Your task to perform on an android device: Go to Android settings Image 0: 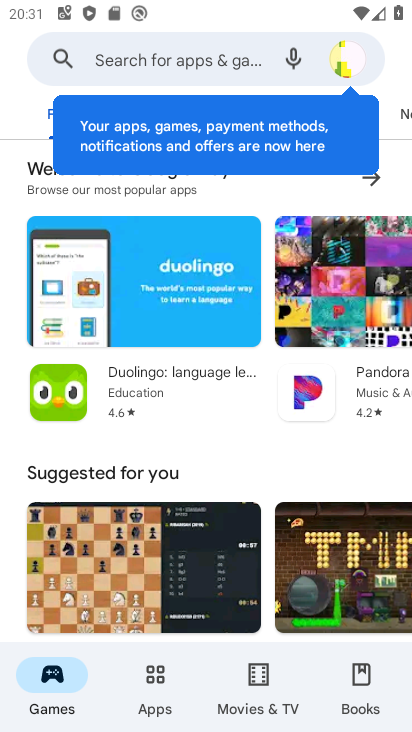
Step 0: press home button
Your task to perform on an android device: Go to Android settings Image 1: 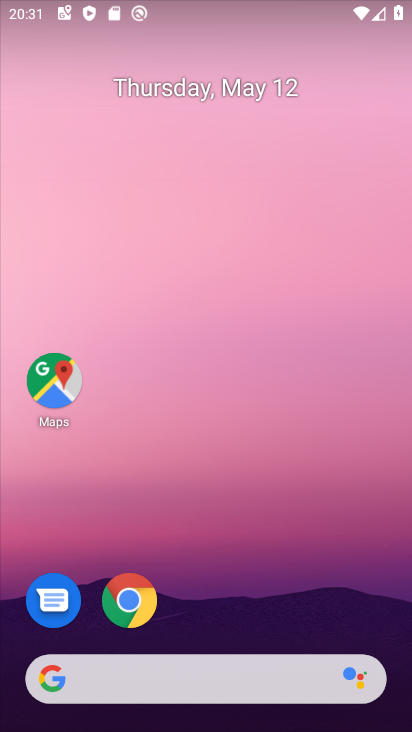
Step 1: drag from (260, 625) to (215, 277)
Your task to perform on an android device: Go to Android settings Image 2: 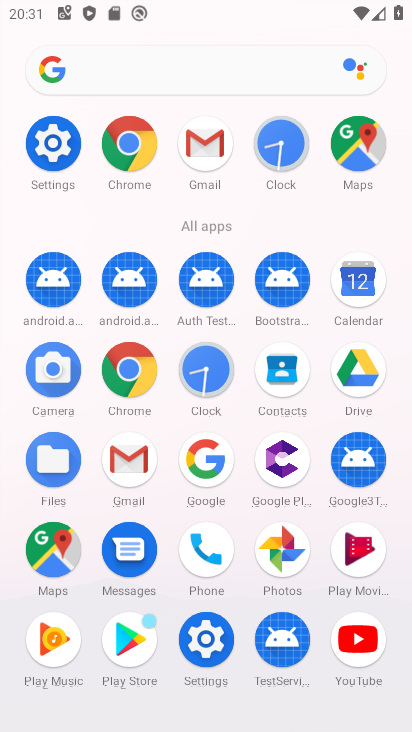
Step 2: drag from (250, 580) to (264, 255)
Your task to perform on an android device: Go to Android settings Image 3: 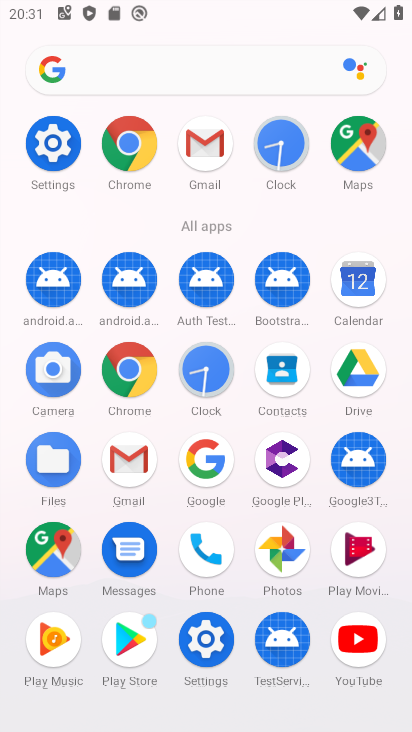
Step 3: click (203, 665)
Your task to perform on an android device: Go to Android settings Image 4: 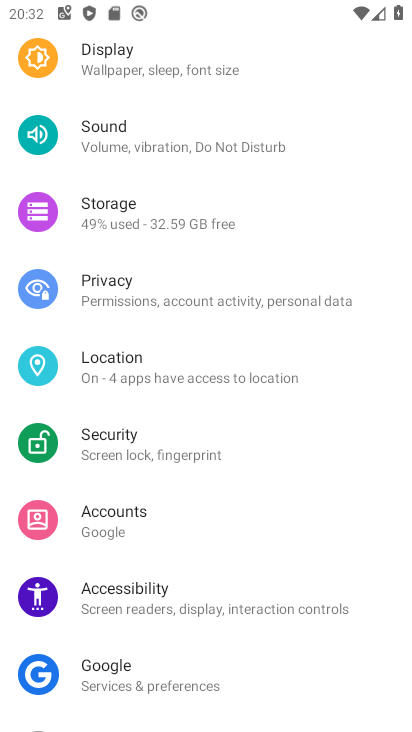
Step 4: drag from (121, 644) to (152, 290)
Your task to perform on an android device: Go to Android settings Image 5: 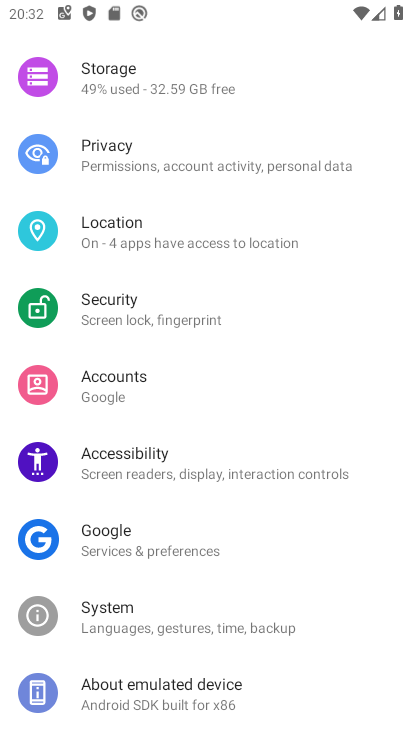
Step 5: click (164, 694)
Your task to perform on an android device: Go to Android settings Image 6: 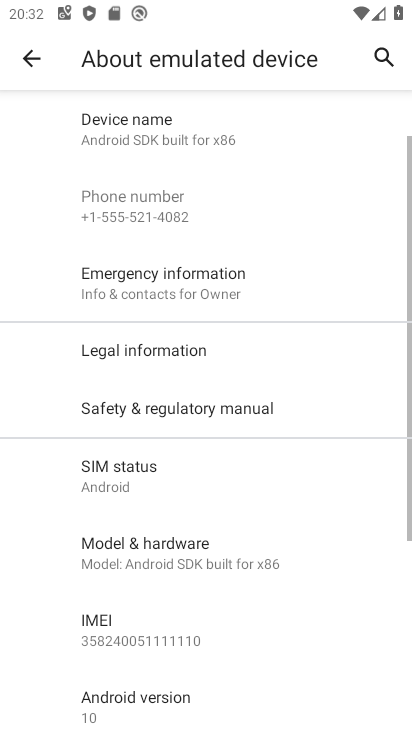
Step 6: click (125, 497)
Your task to perform on an android device: Go to Android settings Image 7: 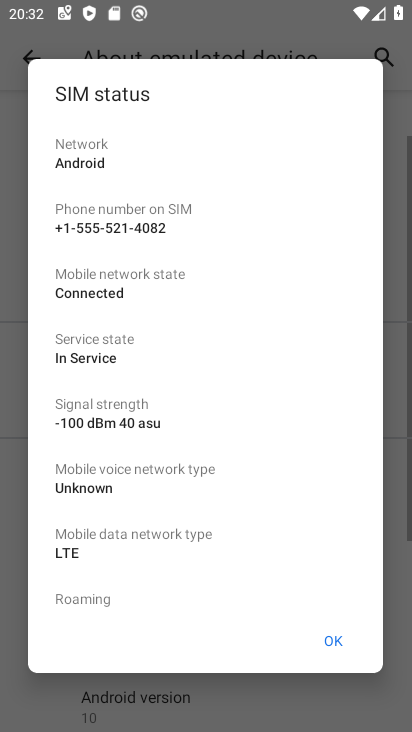
Step 7: click (332, 640)
Your task to perform on an android device: Go to Android settings Image 8: 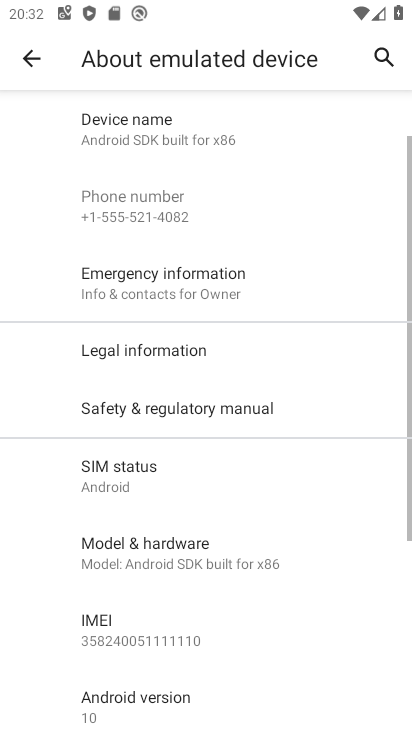
Step 8: drag from (197, 661) to (184, 414)
Your task to perform on an android device: Go to Android settings Image 9: 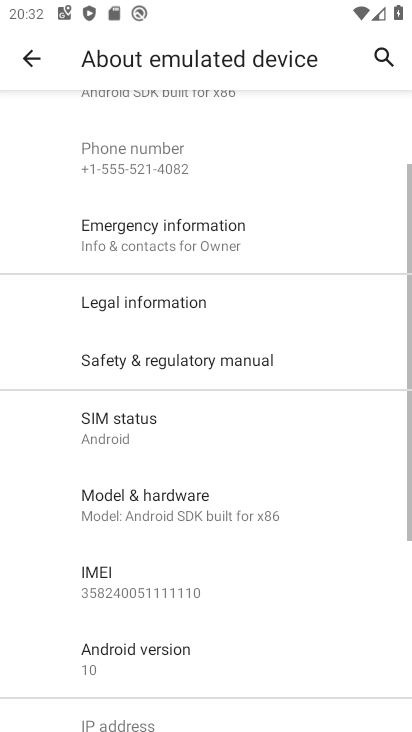
Step 9: click (133, 668)
Your task to perform on an android device: Go to Android settings Image 10: 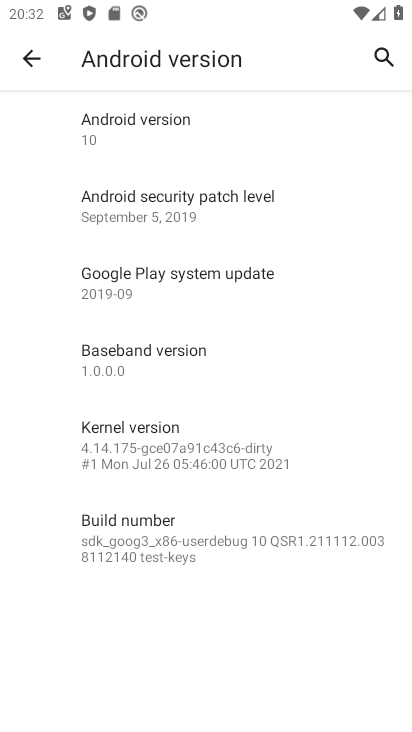
Step 10: task complete